Your task to perform on an android device: toggle wifi Image 0: 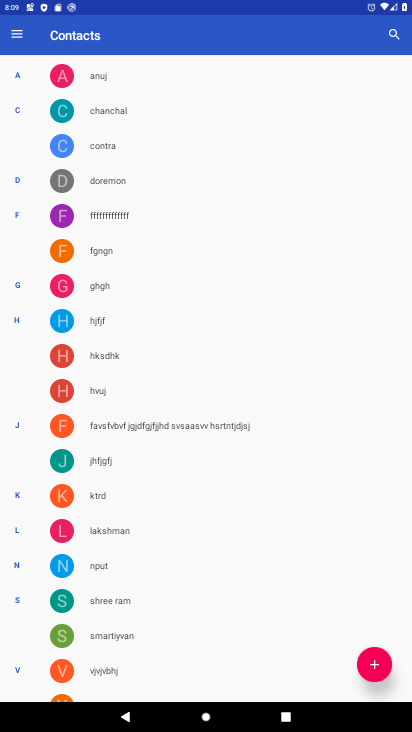
Step 0: press home button
Your task to perform on an android device: toggle wifi Image 1: 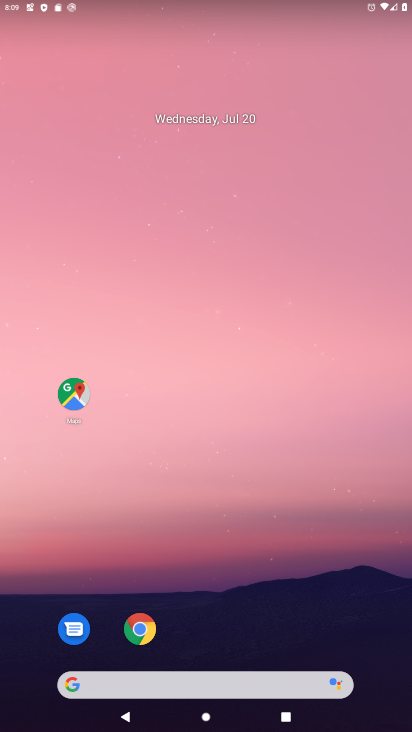
Step 1: drag from (191, 614) to (180, 265)
Your task to perform on an android device: toggle wifi Image 2: 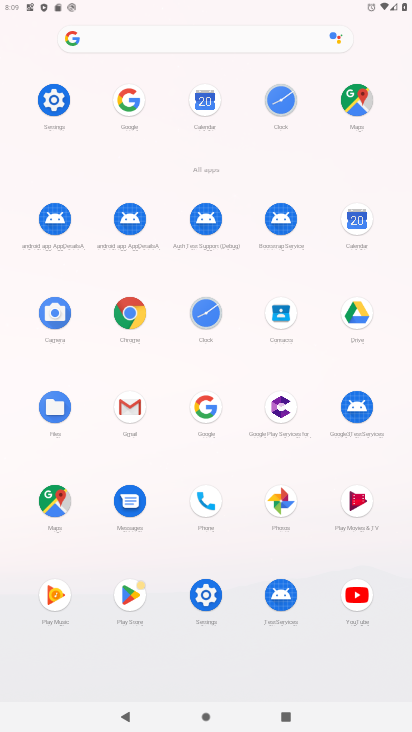
Step 2: click (56, 105)
Your task to perform on an android device: toggle wifi Image 3: 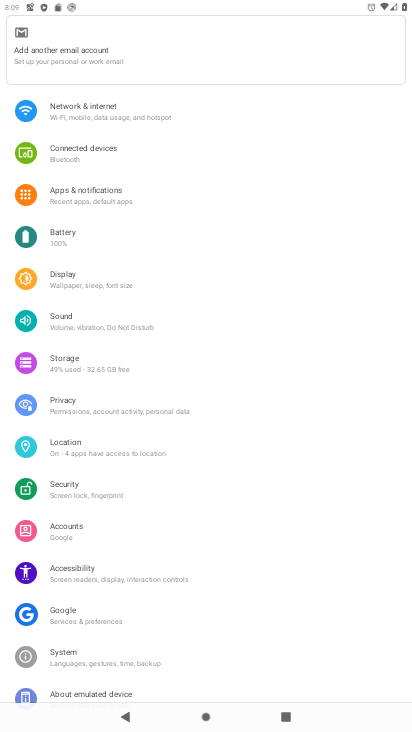
Step 3: click (69, 107)
Your task to perform on an android device: toggle wifi Image 4: 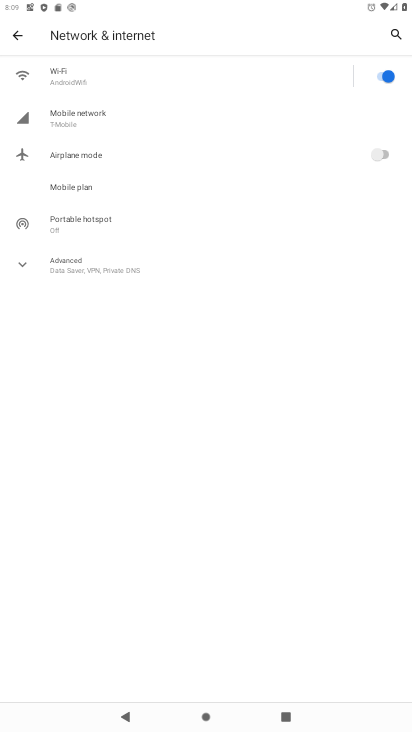
Step 4: click (383, 71)
Your task to perform on an android device: toggle wifi Image 5: 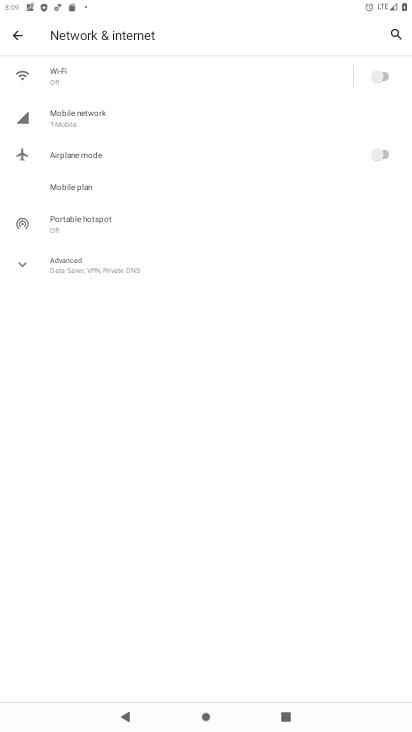
Step 5: task complete